Your task to perform on an android device: Go to privacy settings Image 0: 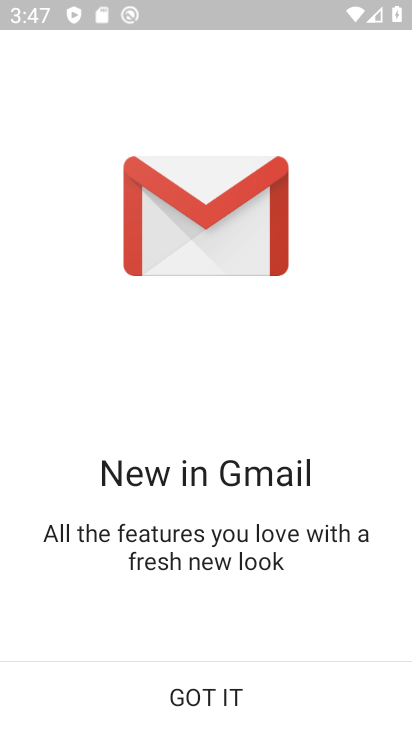
Step 0: click (275, 705)
Your task to perform on an android device: Go to privacy settings Image 1: 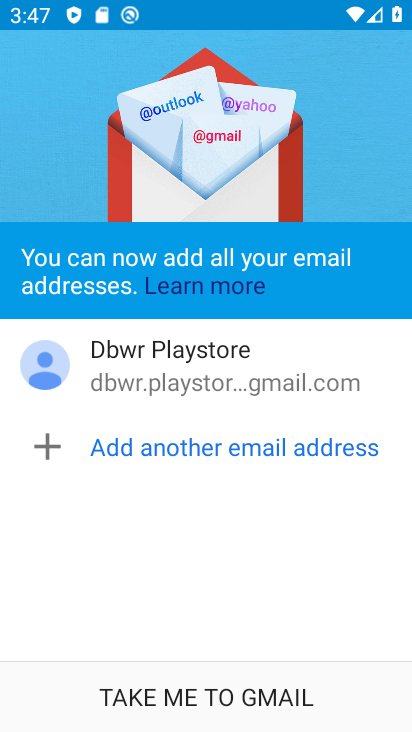
Step 1: press back button
Your task to perform on an android device: Go to privacy settings Image 2: 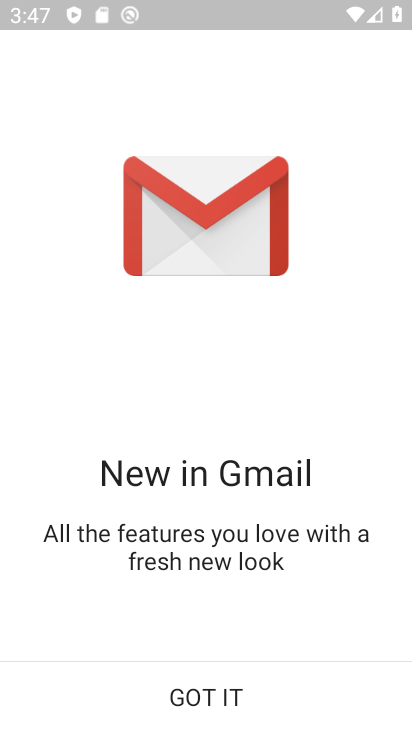
Step 2: press home button
Your task to perform on an android device: Go to privacy settings Image 3: 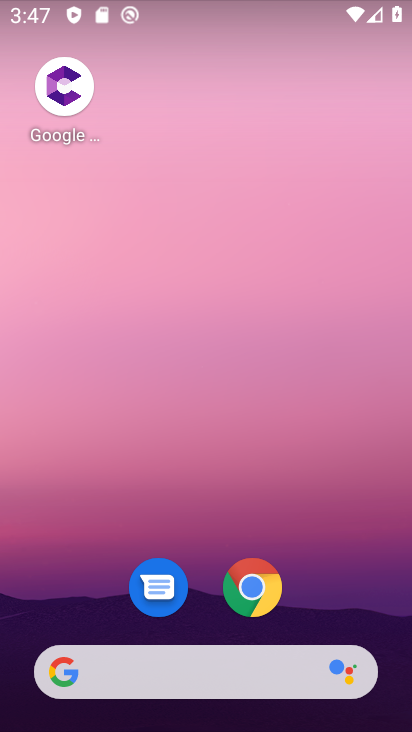
Step 3: drag from (312, 581) to (204, 1)
Your task to perform on an android device: Go to privacy settings Image 4: 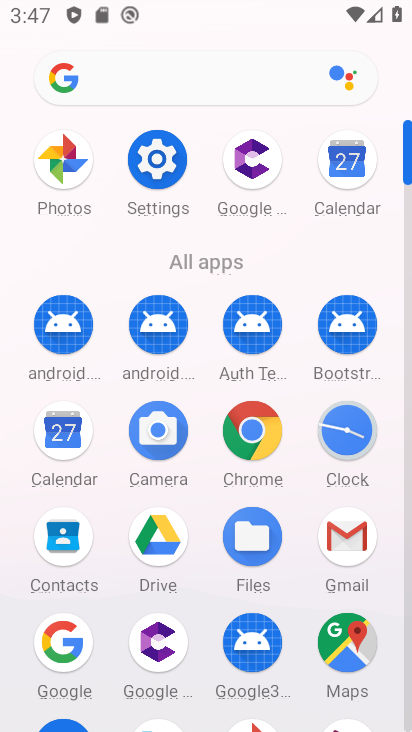
Step 4: drag from (10, 546) to (9, 245)
Your task to perform on an android device: Go to privacy settings Image 5: 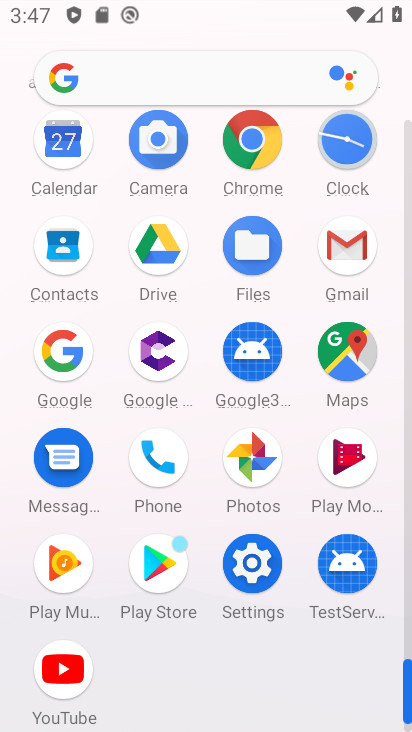
Step 5: click (250, 136)
Your task to perform on an android device: Go to privacy settings Image 6: 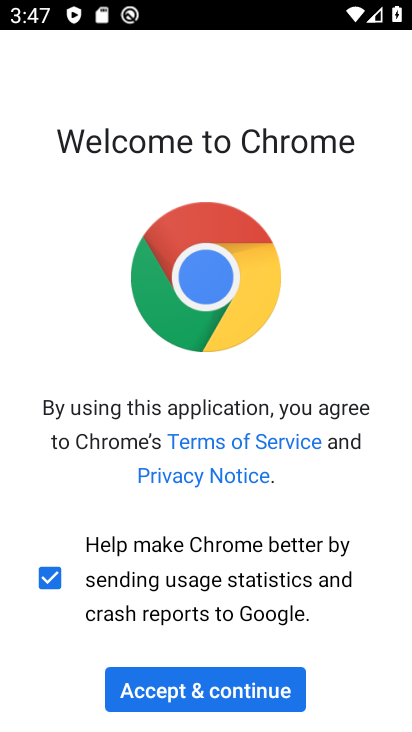
Step 6: click (255, 693)
Your task to perform on an android device: Go to privacy settings Image 7: 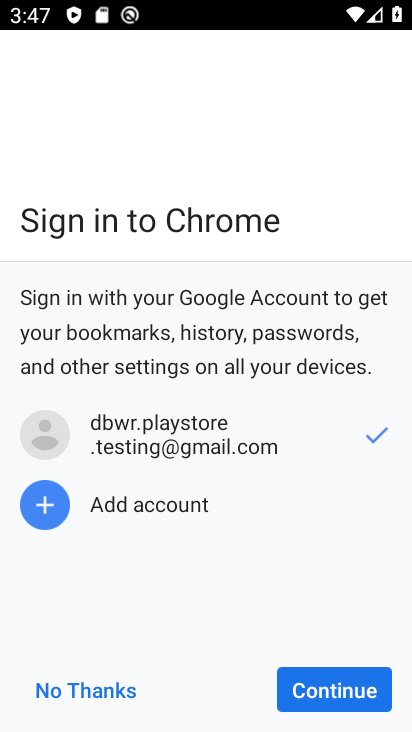
Step 7: click (320, 681)
Your task to perform on an android device: Go to privacy settings Image 8: 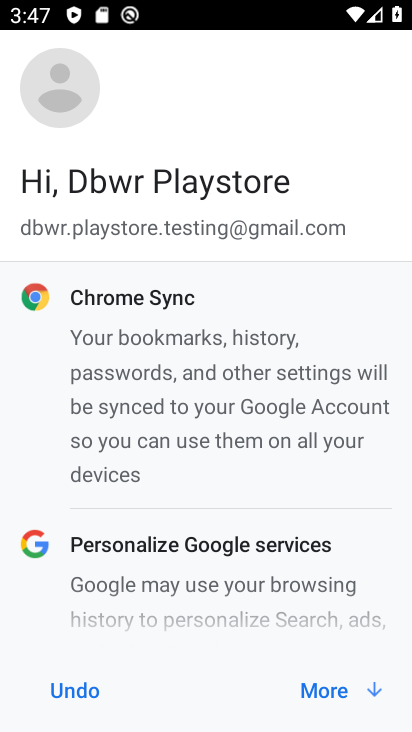
Step 8: click (320, 682)
Your task to perform on an android device: Go to privacy settings Image 9: 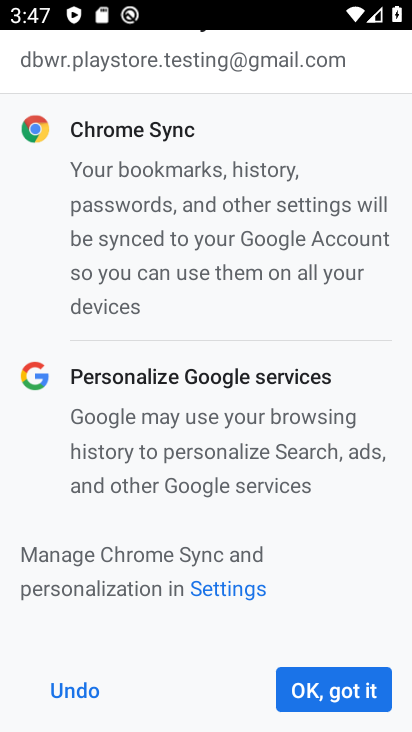
Step 9: click (320, 682)
Your task to perform on an android device: Go to privacy settings Image 10: 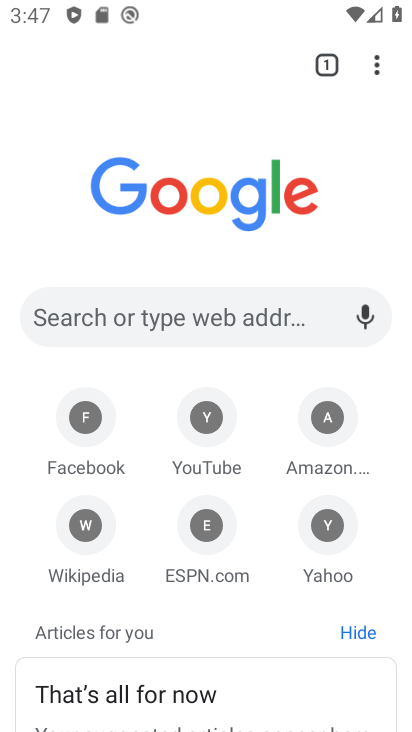
Step 10: drag from (375, 56) to (139, 550)
Your task to perform on an android device: Go to privacy settings Image 11: 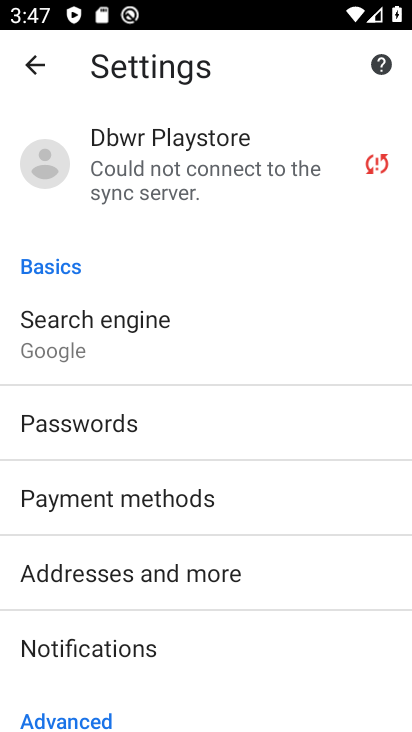
Step 11: drag from (224, 602) to (228, 247)
Your task to perform on an android device: Go to privacy settings Image 12: 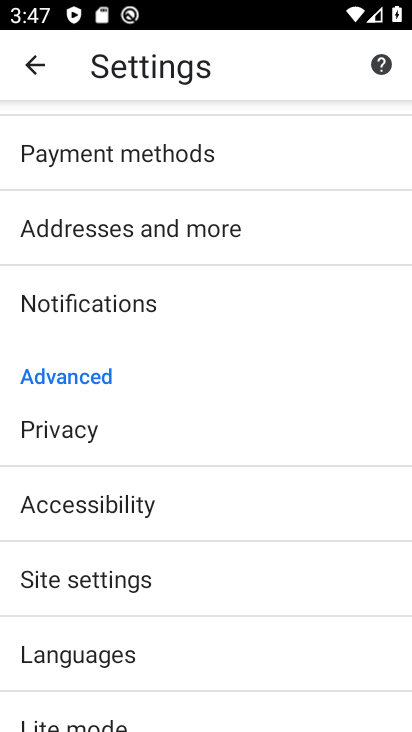
Step 12: drag from (190, 488) to (220, 234)
Your task to perform on an android device: Go to privacy settings Image 13: 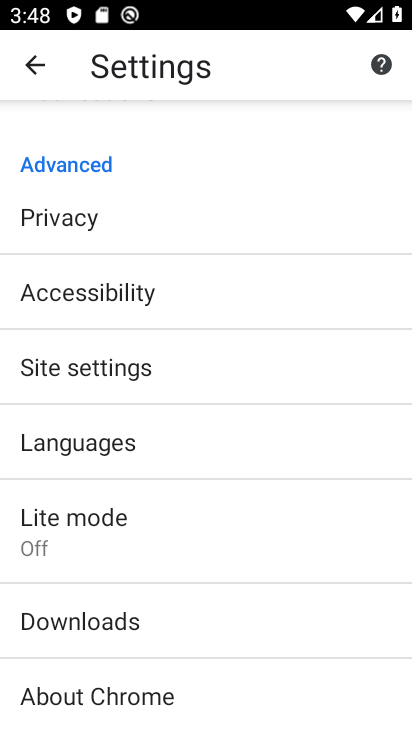
Step 13: click (123, 233)
Your task to perform on an android device: Go to privacy settings Image 14: 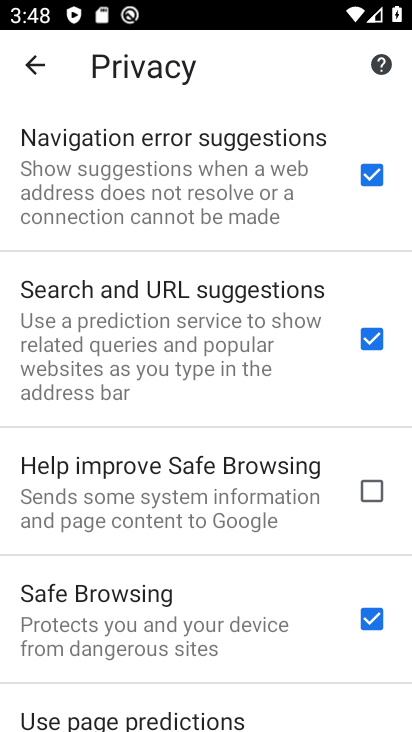
Step 14: task complete